Your task to perform on an android device: Is it going to rain today? Image 0: 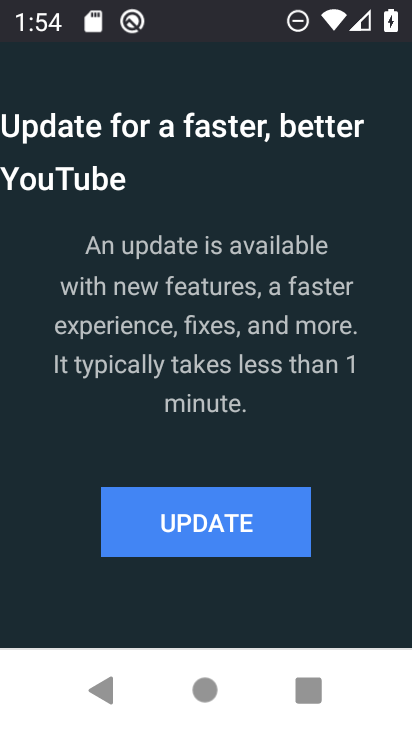
Step 0: press home button
Your task to perform on an android device: Is it going to rain today? Image 1: 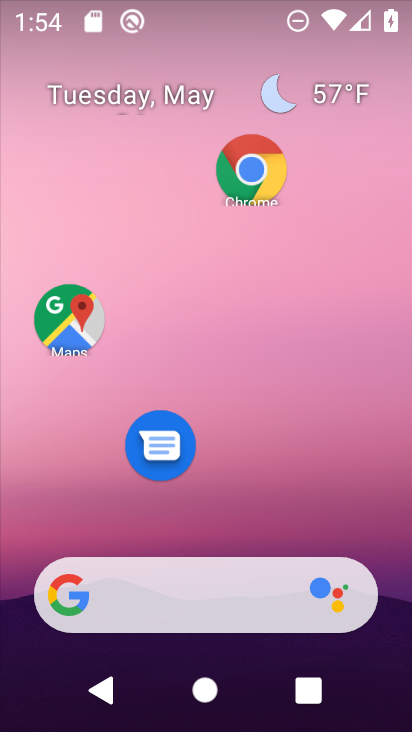
Step 1: click (268, 93)
Your task to perform on an android device: Is it going to rain today? Image 2: 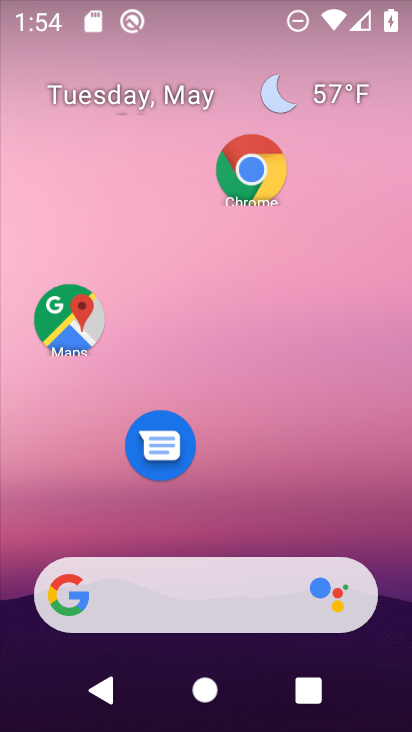
Step 2: click (270, 93)
Your task to perform on an android device: Is it going to rain today? Image 3: 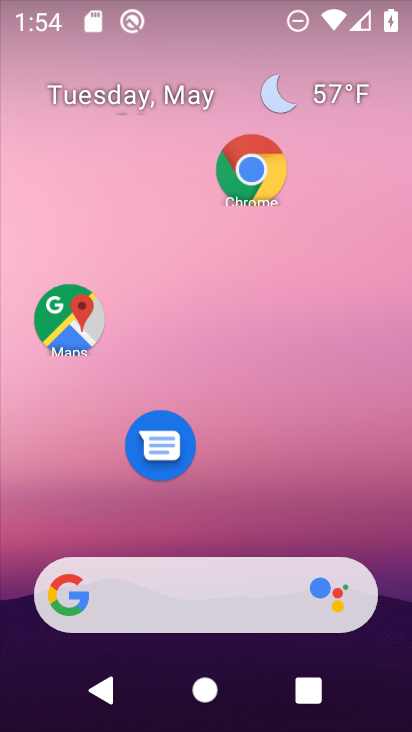
Step 3: drag from (251, 728) to (248, 174)
Your task to perform on an android device: Is it going to rain today? Image 4: 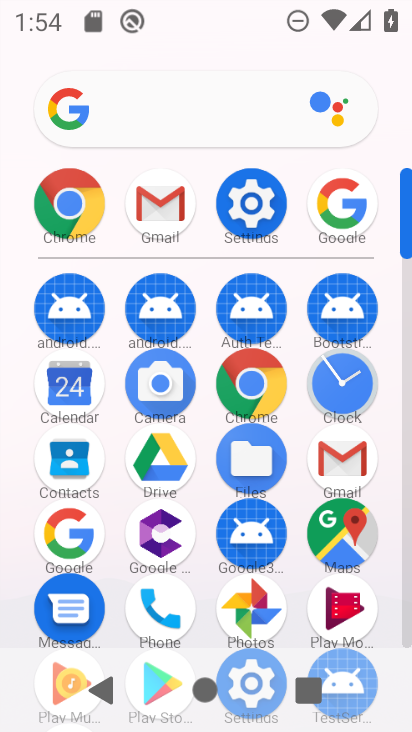
Step 4: click (342, 195)
Your task to perform on an android device: Is it going to rain today? Image 5: 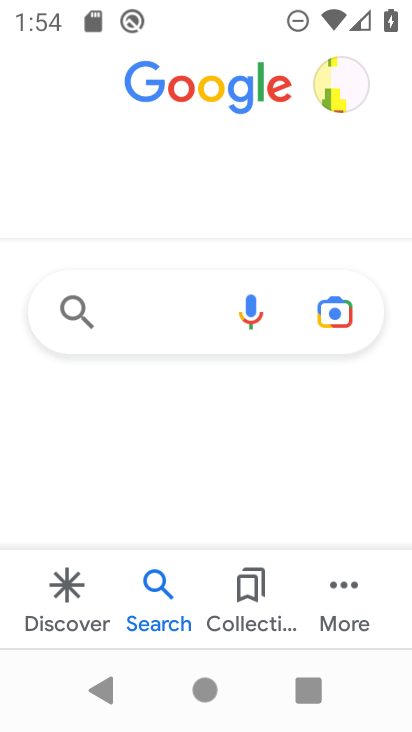
Step 5: drag from (166, 512) to (137, 192)
Your task to perform on an android device: Is it going to rain today? Image 6: 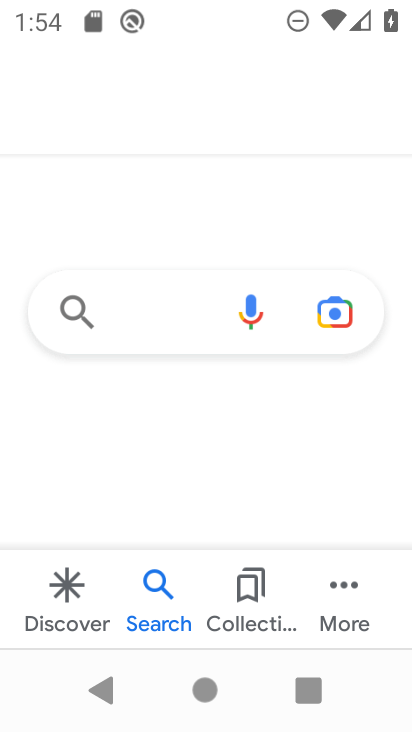
Step 6: click (128, 321)
Your task to perform on an android device: Is it going to rain today? Image 7: 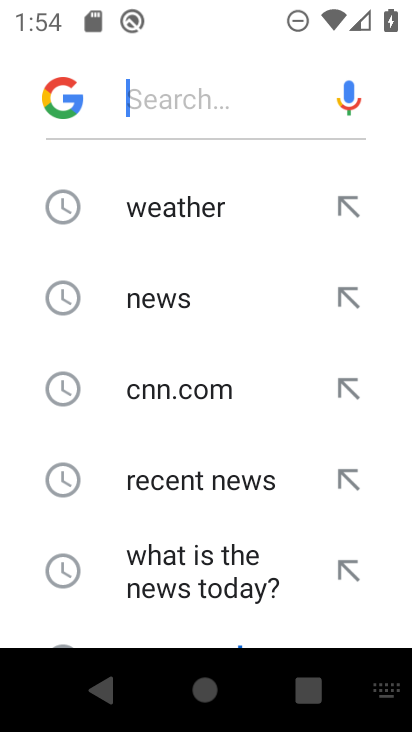
Step 7: click (167, 209)
Your task to perform on an android device: Is it going to rain today? Image 8: 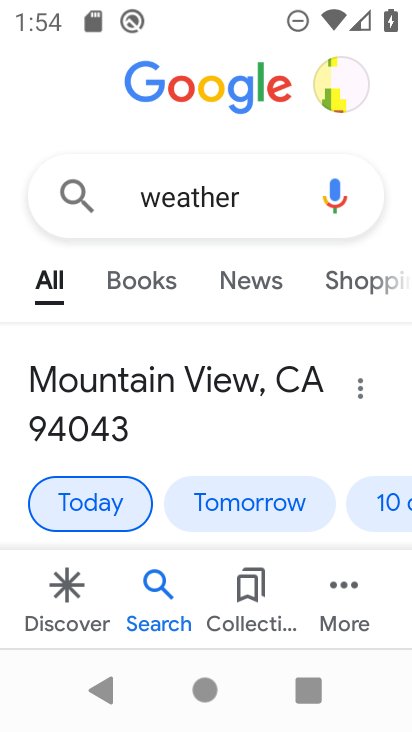
Step 8: drag from (169, 528) to (169, 298)
Your task to perform on an android device: Is it going to rain today? Image 9: 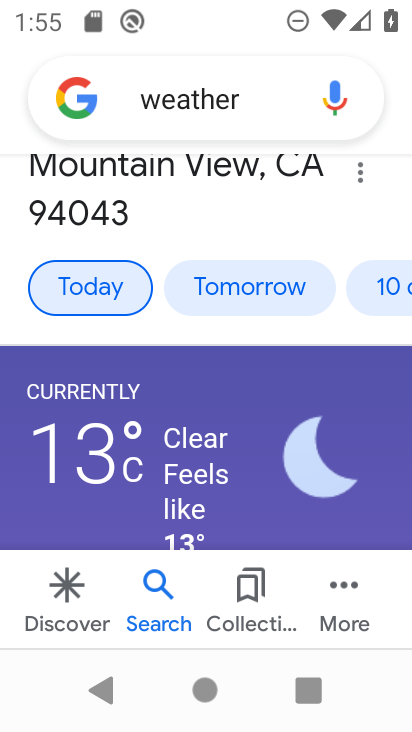
Step 9: click (74, 293)
Your task to perform on an android device: Is it going to rain today? Image 10: 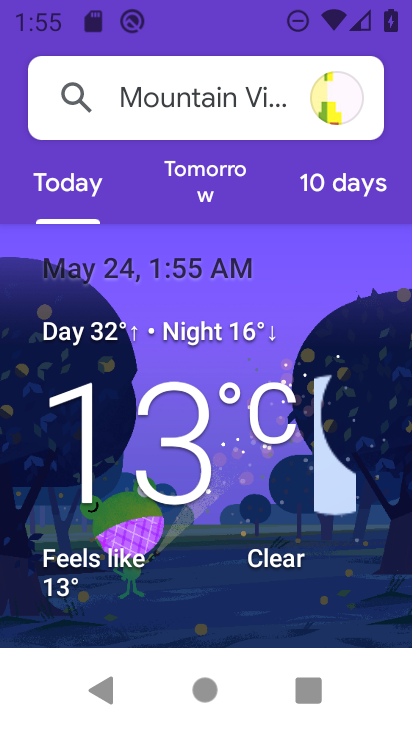
Step 10: task complete